Your task to perform on an android device: turn off smart reply in the gmail app Image 0: 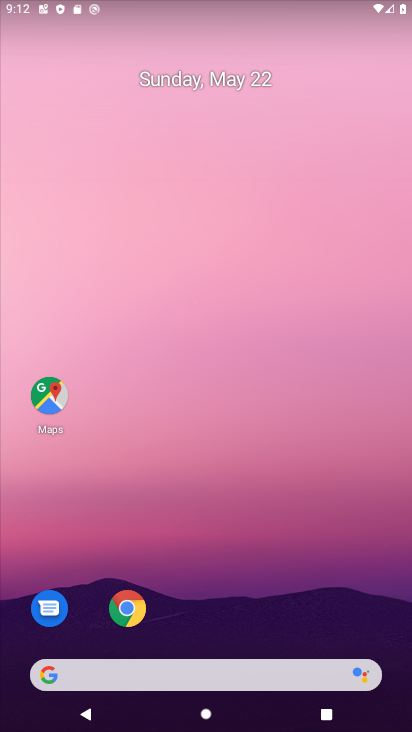
Step 0: drag from (281, 357) to (289, 147)
Your task to perform on an android device: turn off smart reply in the gmail app Image 1: 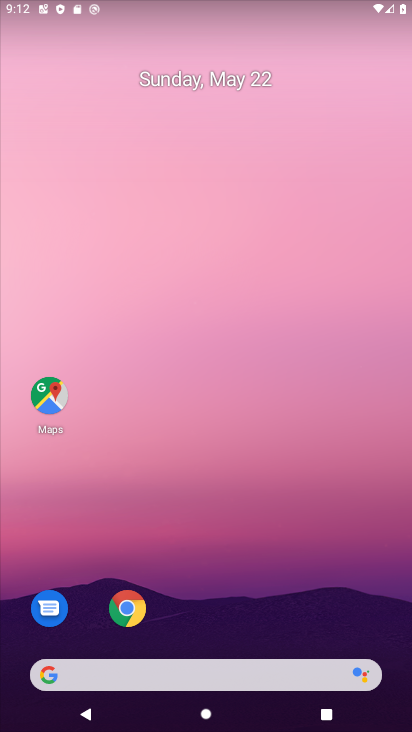
Step 1: drag from (256, 500) to (267, 118)
Your task to perform on an android device: turn off smart reply in the gmail app Image 2: 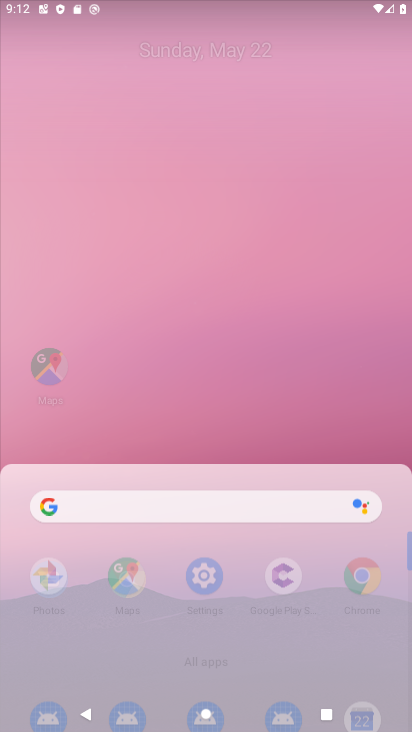
Step 2: click (268, 110)
Your task to perform on an android device: turn off smart reply in the gmail app Image 3: 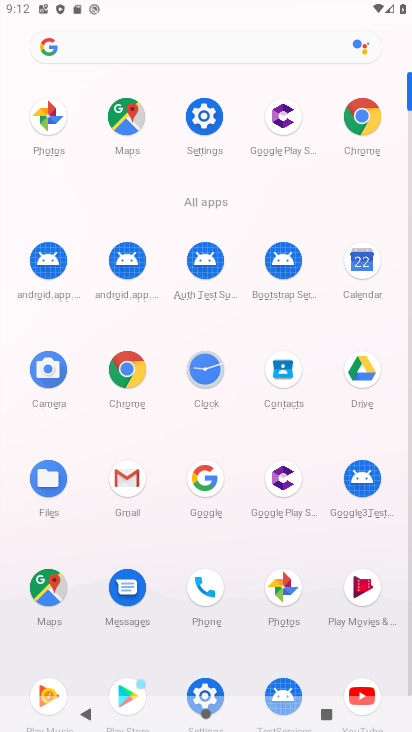
Step 3: click (128, 495)
Your task to perform on an android device: turn off smart reply in the gmail app Image 4: 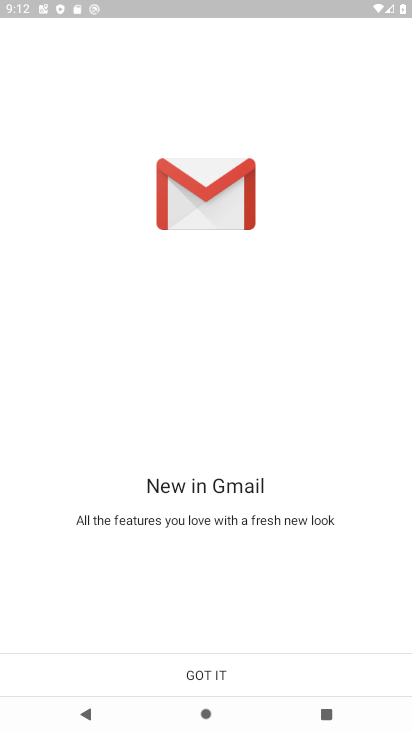
Step 4: click (233, 674)
Your task to perform on an android device: turn off smart reply in the gmail app Image 5: 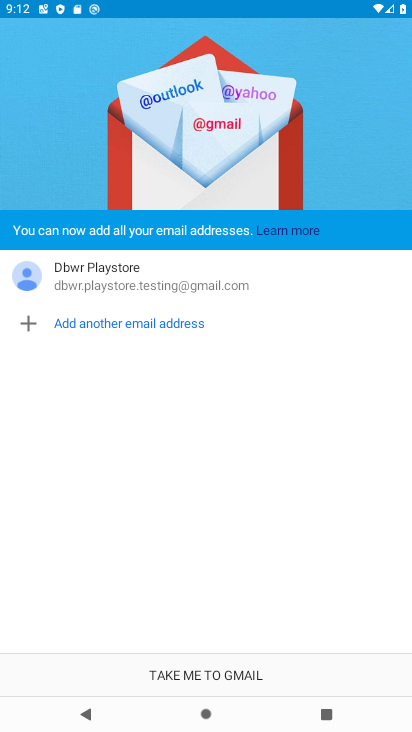
Step 5: click (234, 674)
Your task to perform on an android device: turn off smart reply in the gmail app Image 6: 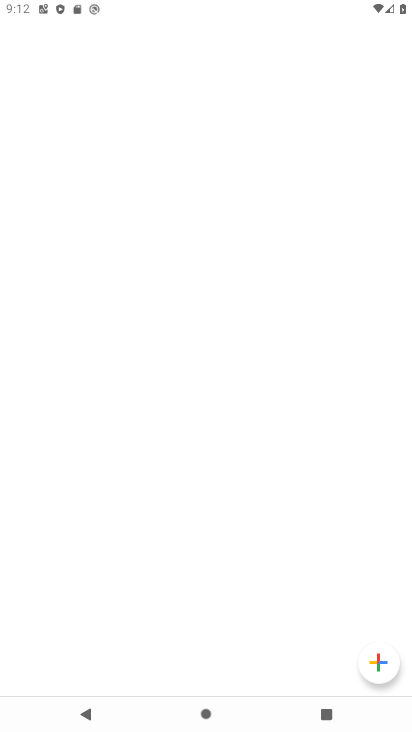
Step 6: drag from (234, 674) to (302, 334)
Your task to perform on an android device: turn off smart reply in the gmail app Image 7: 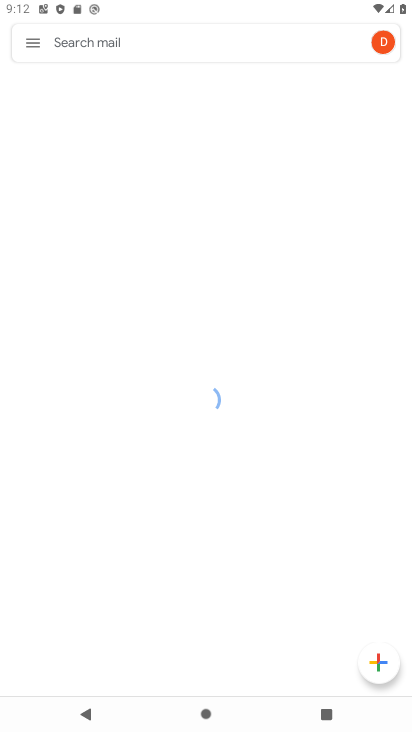
Step 7: click (31, 48)
Your task to perform on an android device: turn off smart reply in the gmail app Image 8: 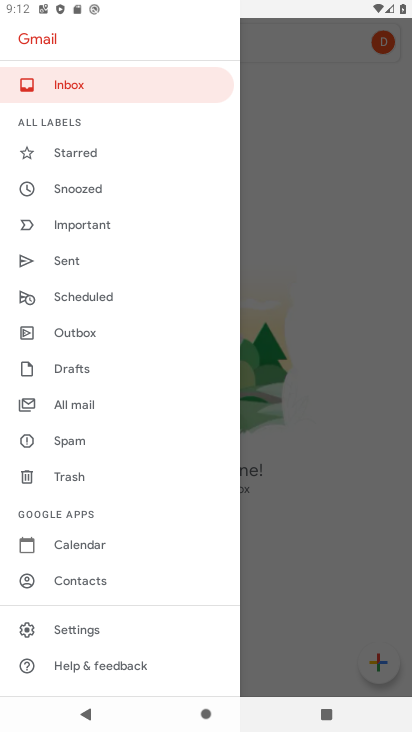
Step 8: click (102, 644)
Your task to perform on an android device: turn off smart reply in the gmail app Image 9: 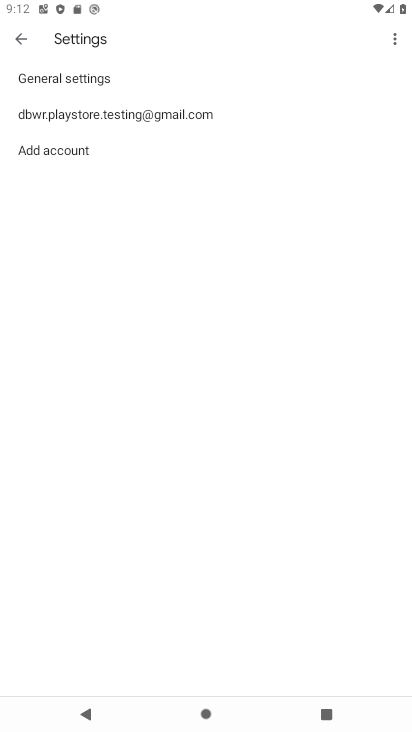
Step 9: click (169, 115)
Your task to perform on an android device: turn off smart reply in the gmail app Image 10: 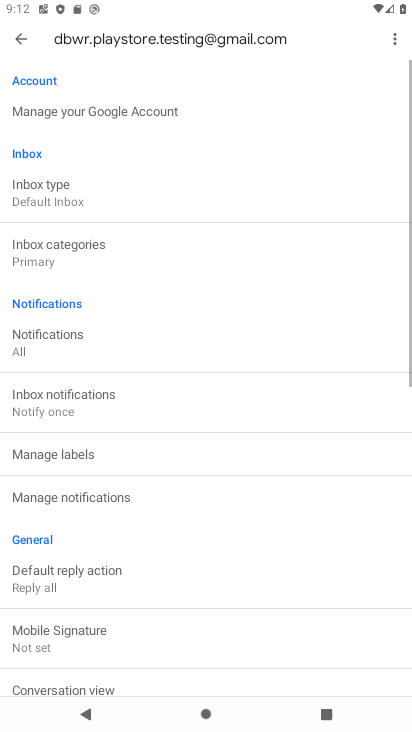
Step 10: drag from (287, 629) to (352, 89)
Your task to perform on an android device: turn off smart reply in the gmail app Image 11: 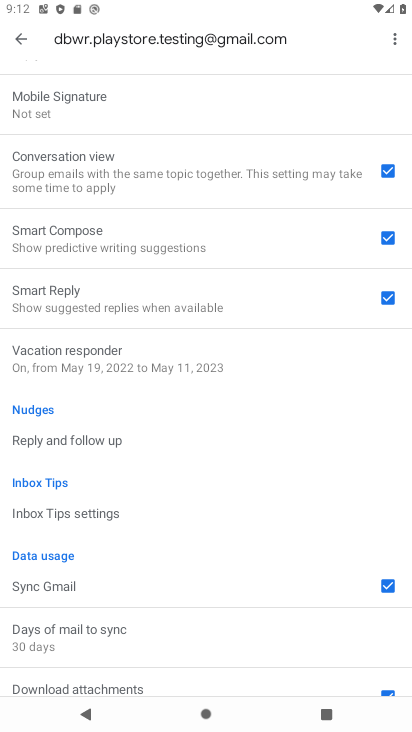
Step 11: click (387, 294)
Your task to perform on an android device: turn off smart reply in the gmail app Image 12: 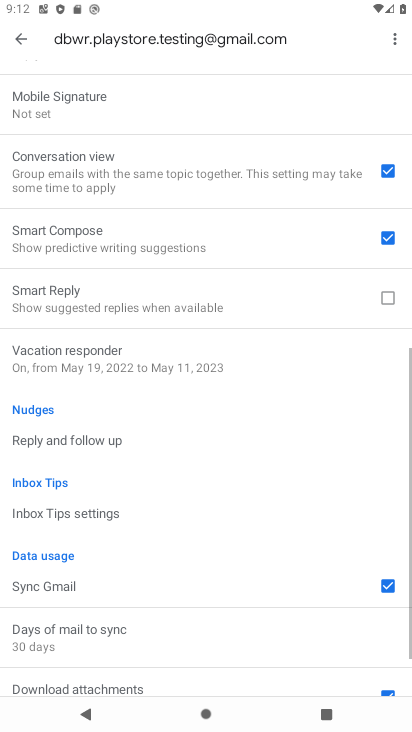
Step 12: task complete